Your task to perform on an android device: install app "Messages" Image 0: 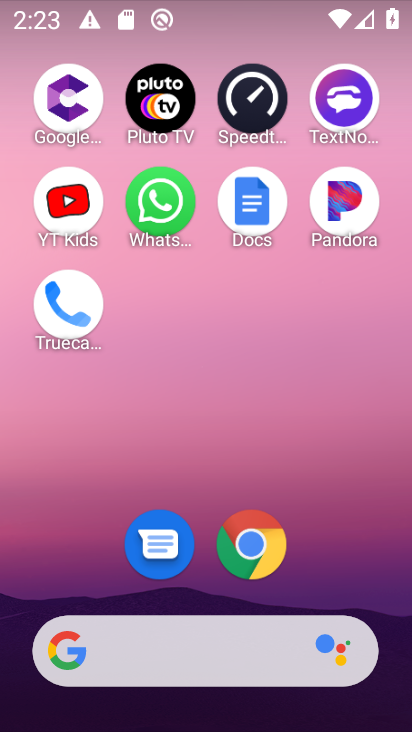
Step 0: press home button
Your task to perform on an android device: install app "Messages" Image 1: 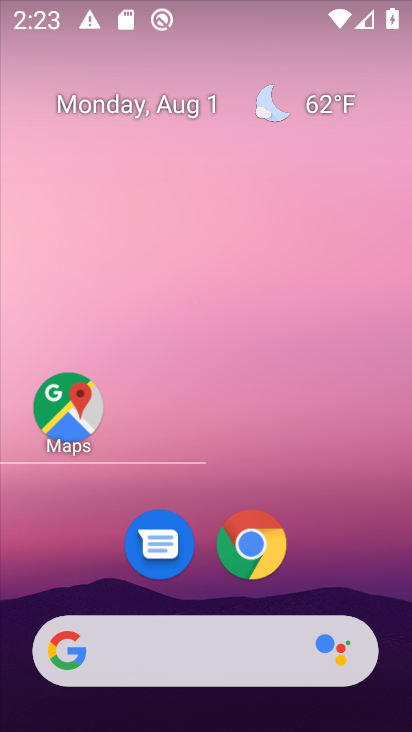
Step 1: drag from (379, 587) to (207, 5)
Your task to perform on an android device: install app "Messages" Image 2: 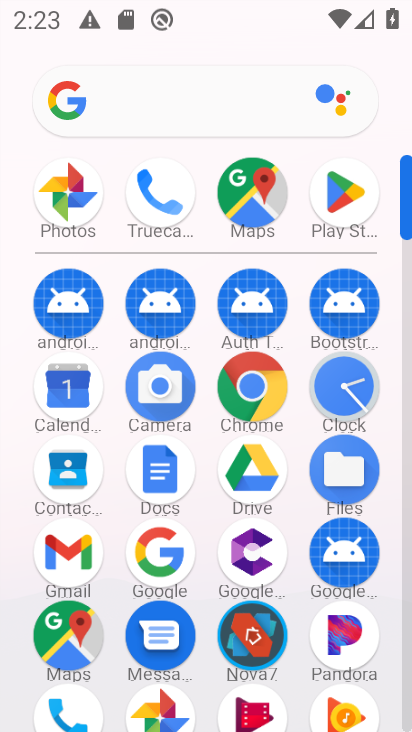
Step 2: click (332, 175)
Your task to perform on an android device: install app "Messages" Image 3: 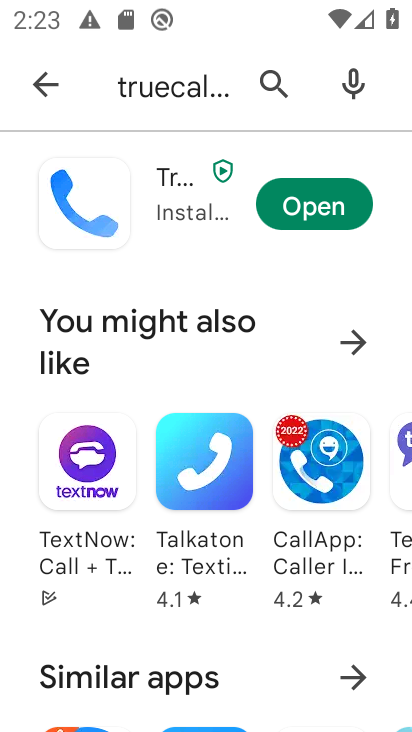
Step 3: press back button
Your task to perform on an android device: install app "Messages" Image 4: 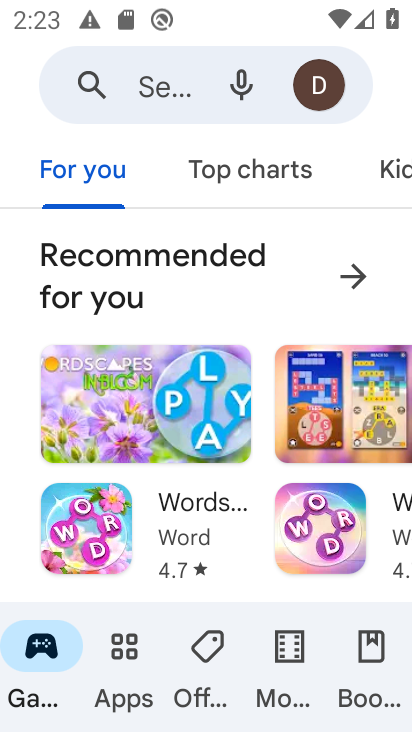
Step 4: click (129, 88)
Your task to perform on an android device: install app "Messages" Image 5: 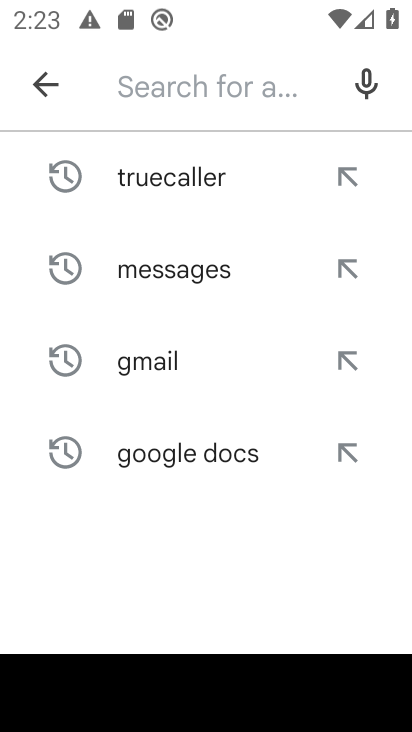
Step 5: type "Messages"
Your task to perform on an android device: install app "Messages" Image 6: 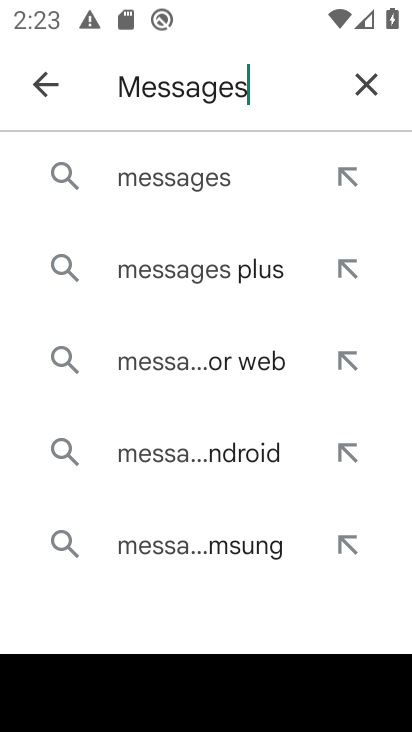
Step 6: click (163, 207)
Your task to perform on an android device: install app "Messages" Image 7: 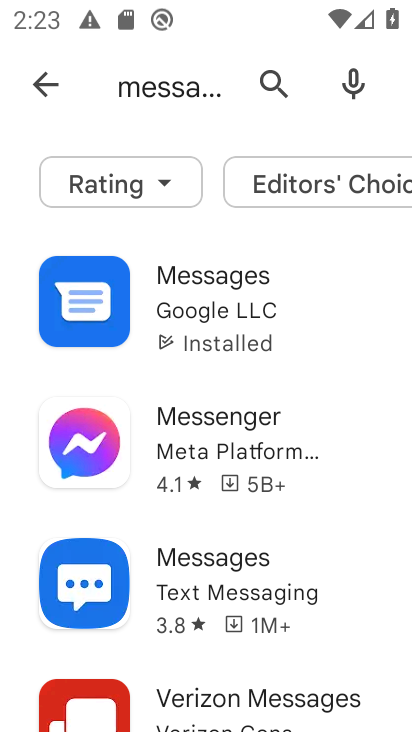
Step 7: click (130, 285)
Your task to perform on an android device: install app "Messages" Image 8: 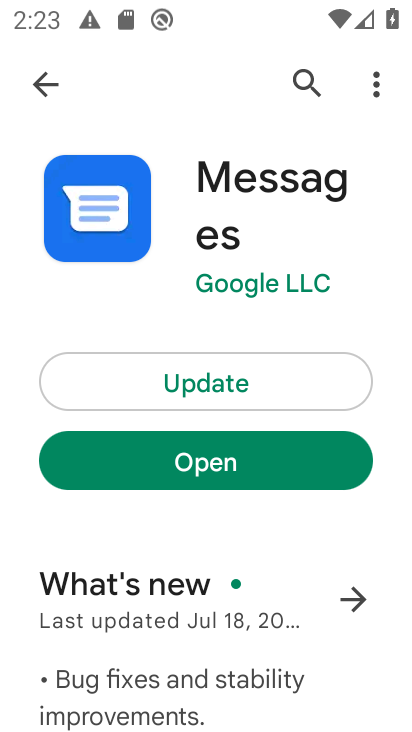
Step 8: task complete